Your task to perform on an android device: Open Chrome and go to the settings page Image 0: 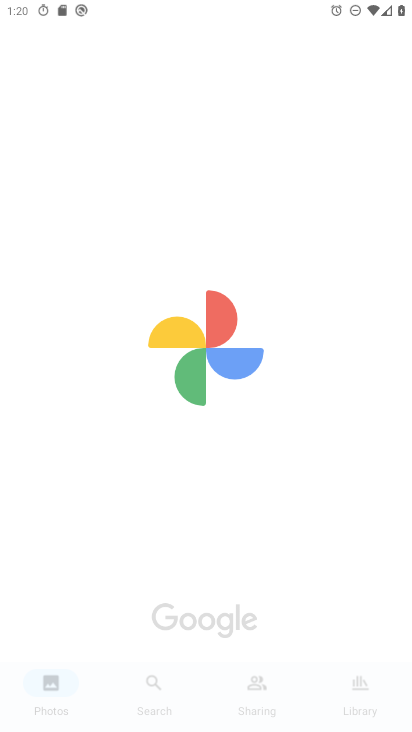
Step 0: click (406, 626)
Your task to perform on an android device: Open Chrome and go to the settings page Image 1: 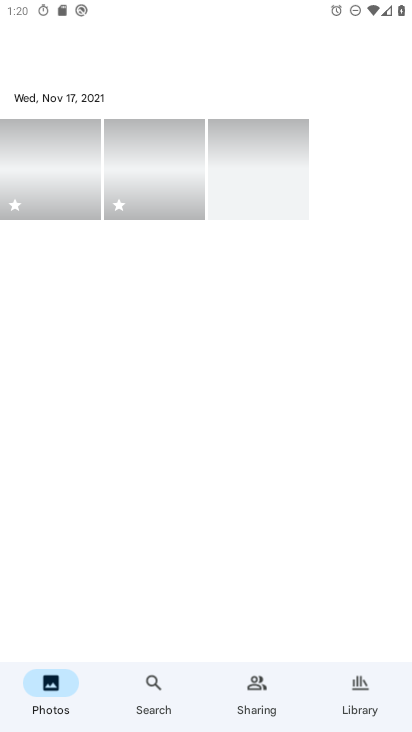
Step 1: drag from (190, 573) to (179, 227)
Your task to perform on an android device: Open Chrome and go to the settings page Image 2: 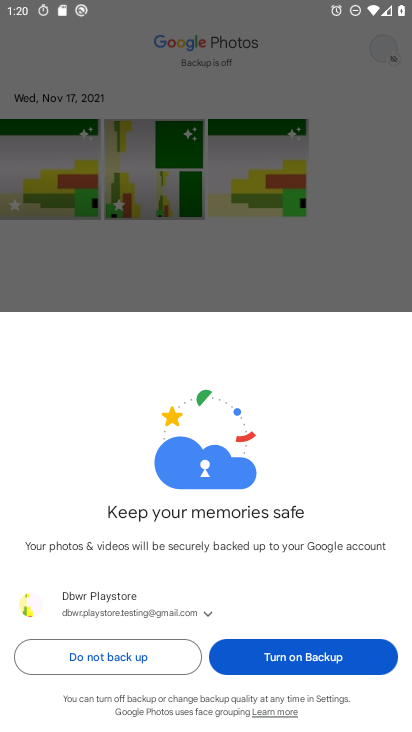
Step 2: press home button
Your task to perform on an android device: Open Chrome and go to the settings page Image 3: 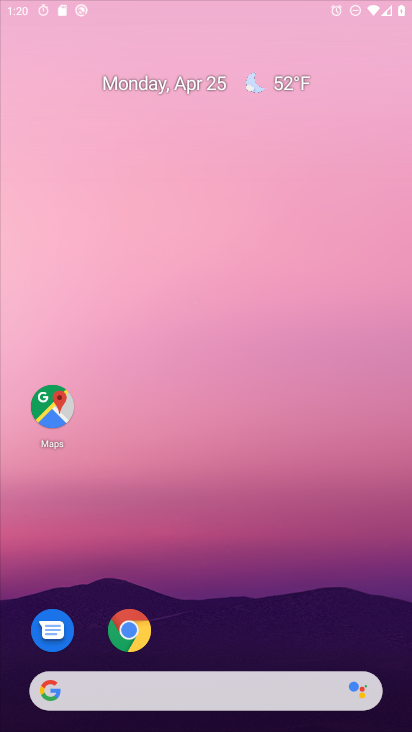
Step 3: drag from (218, 488) to (227, 86)
Your task to perform on an android device: Open Chrome and go to the settings page Image 4: 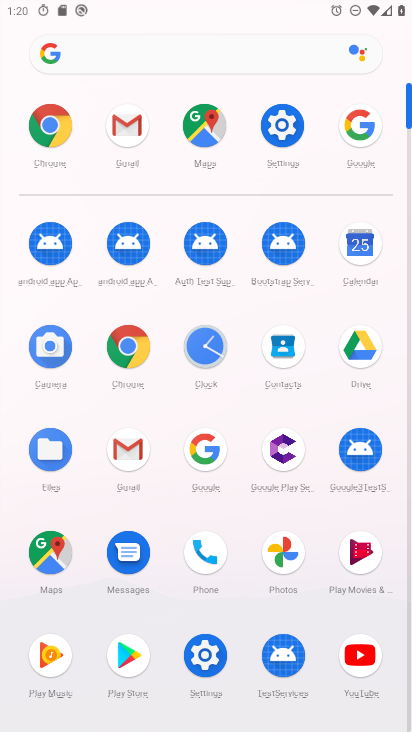
Step 4: click (134, 345)
Your task to perform on an android device: Open Chrome and go to the settings page Image 5: 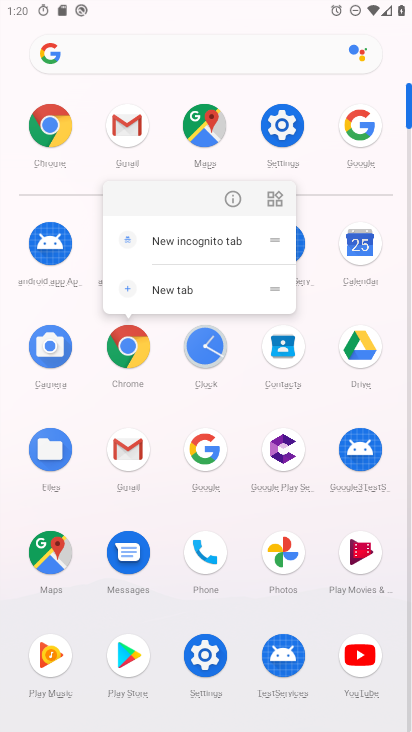
Step 5: click (235, 200)
Your task to perform on an android device: Open Chrome and go to the settings page Image 6: 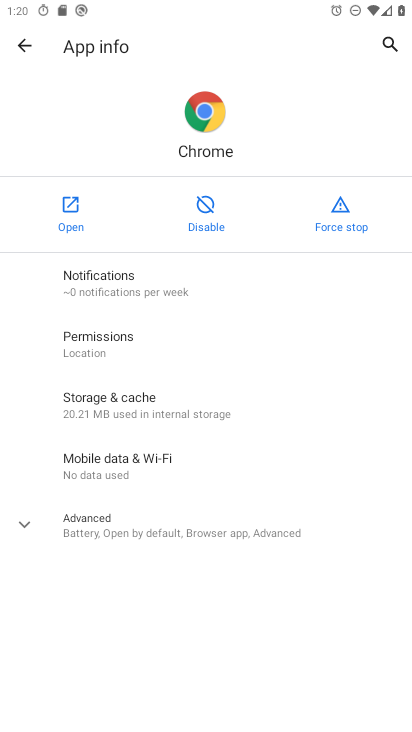
Step 6: click (62, 210)
Your task to perform on an android device: Open Chrome and go to the settings page Image 7: 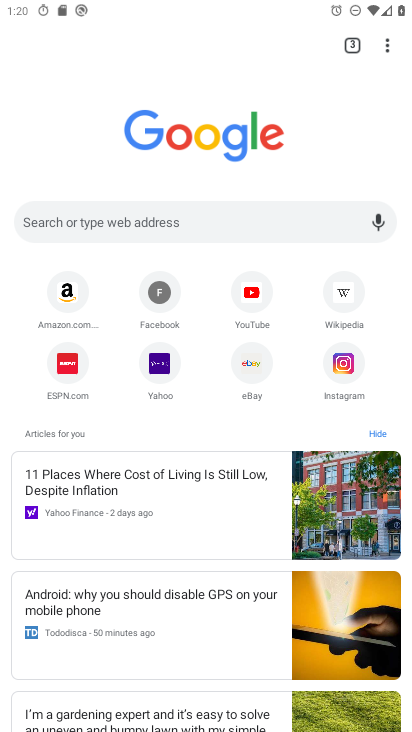
Step 7: task complete